Your task to perform on an android device: turn on airplane mode Image 0: 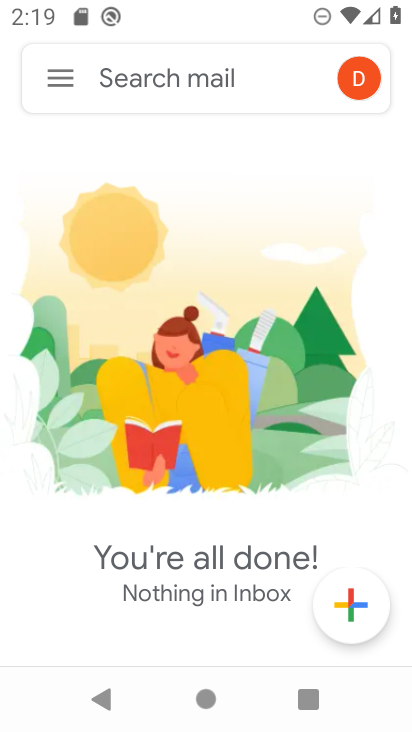
Step 0: press home button
Your task to perform on an android device: turn on airplane mode Image 1: 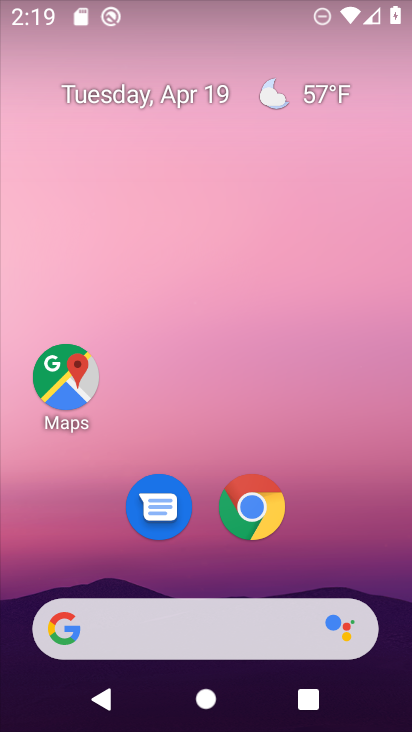
Step 1: drag from (311, 516) to (300, 151)
Your task to perform on an android device: turn on airplane mode Image 2: 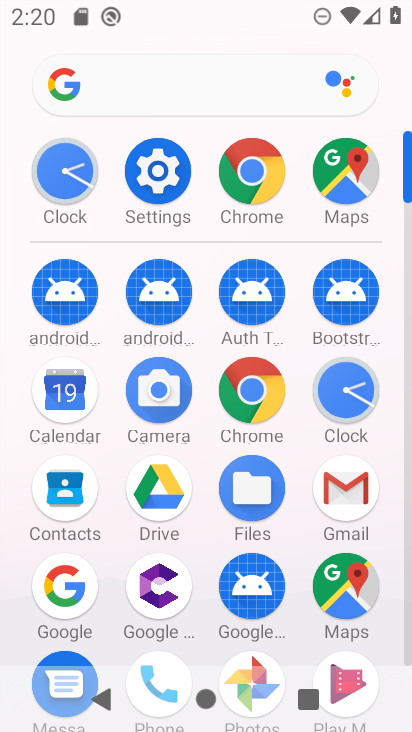
Step 2: click (158, 202)
Your task to perform on an android device: turn on airplane mode Image 3: 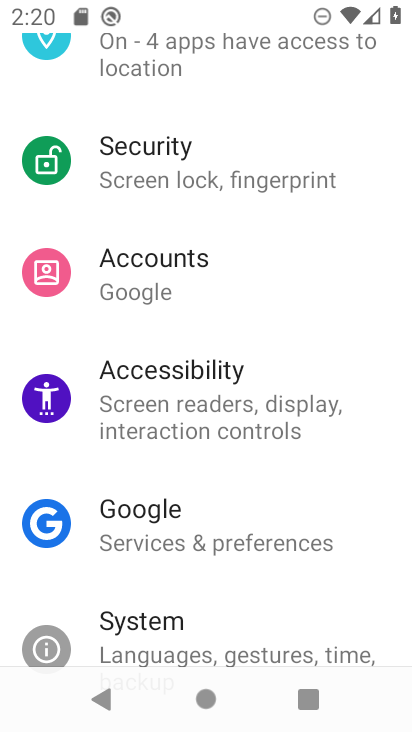
Step 3: drag from (247, 176) to (167, 631)
Your task to perform on an android device: turn on airplane mode Image 4: 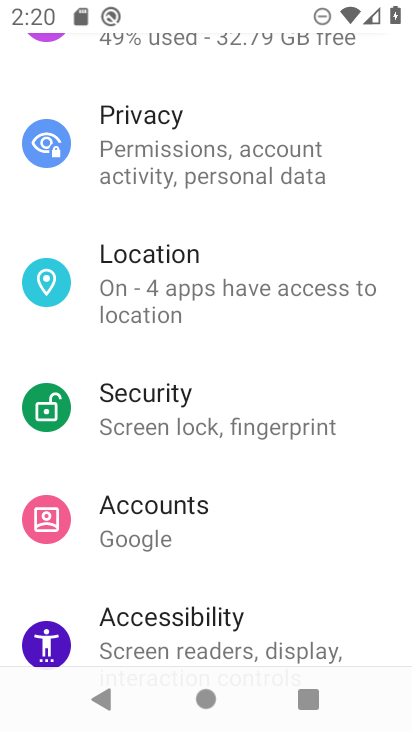
Step 4: drag from (156, 185) to (55, 660)
Your task to perform on an android device: turn on airplane mode Image 5: 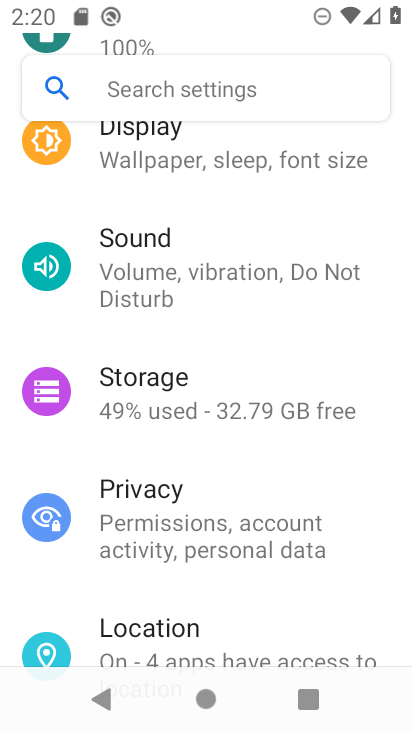
Step 5: drag from (135, 338) to (117, 583)
Your task to perform on an android device: turn on airplane mode Image 6: 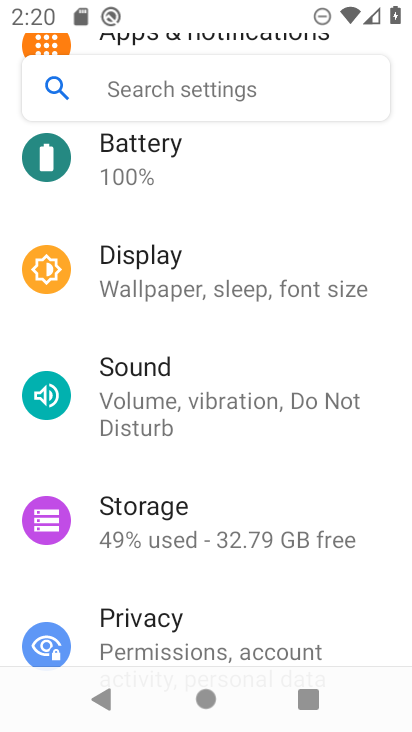
Step 6: drag from (135, 282) to (175, 700)
Your task to perform on an android device: turn on airplane mode Image 7: 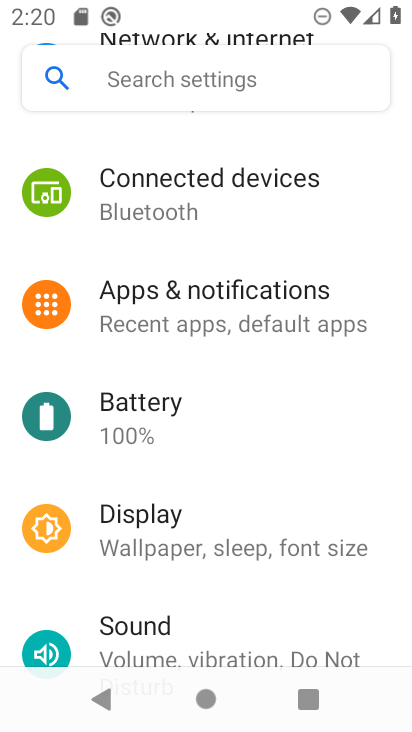
Step 7: drag from (210, 420) to (120, 722)
Your task to perform on an android device: turn on airplane mode Image 8: 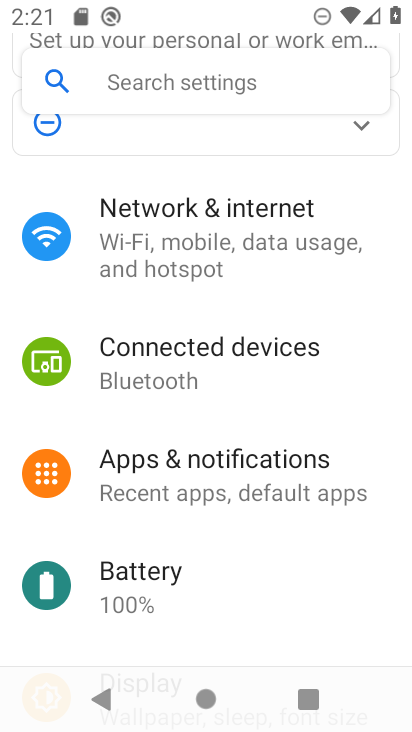
Step 8: click (204, 227)
Your task to perform on an android device: turn on airplane mode Image 9: 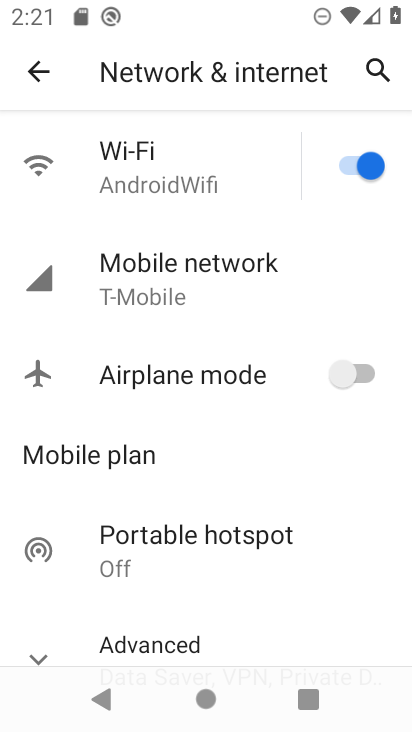
Step 9: click (278, 365)
Your task to perform on an android device: turn on airplane mode Image 10: 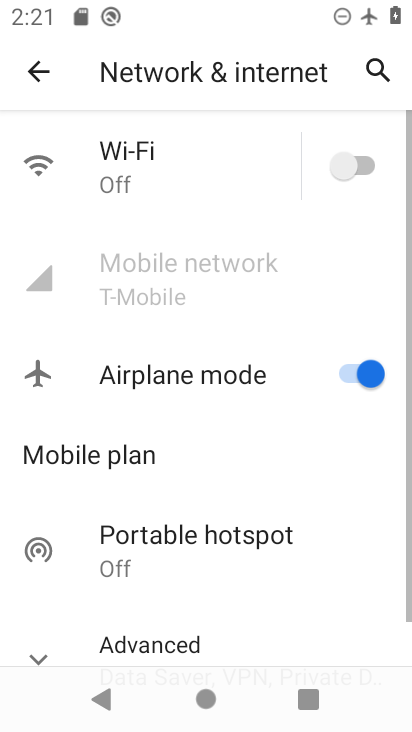
Step 10: task complete